Your task to perform on an android device: open app "Etsy: Buy & Sell Unique Items" (install if not already installed) and enter user name: "camp@inbox.com" and password: "unrelated" Image 0: 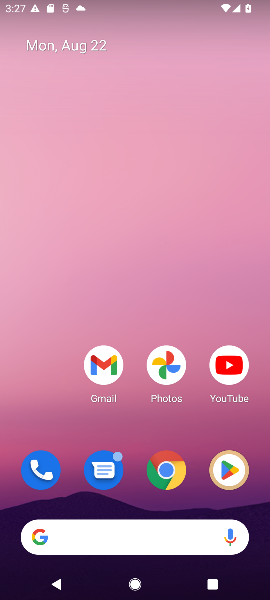
Step 0: drag from (104, 476) to (151, 129)
Your task to perform on an android device: open app "Etsy: Buy & Sell Unique Items" (install if not already installed) and enter user name: "camp@inbox.com" and password: "unrelated" Image 1: 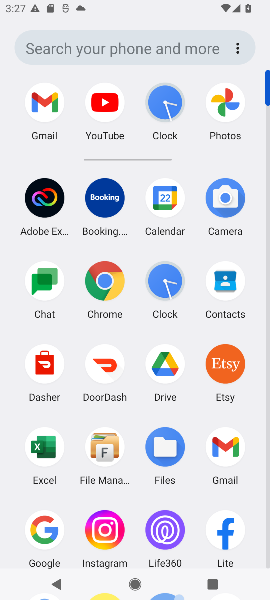
Step 1: drag from (111, 507) to (180, 115)
Your task to perform on an android device: open app "Etsy: Buy & Sell Unique Items" (install if not already installed) and enter user name: "camp@inbox.com" and password: "unrelated" Image 2: 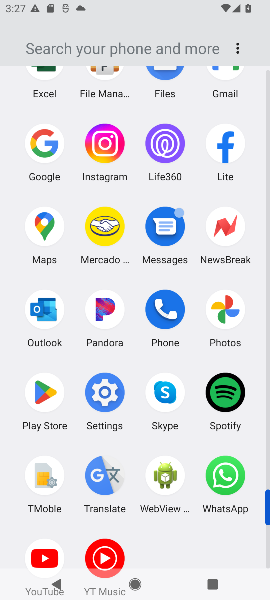
Step 2: click (32, 398)
Your task to perform on an android device: open app "Etsy: Buy & Sell Unique Items" (install if not already installed) and enter user name: "camp@inbox.com" and password: "unrelated" Image 3: 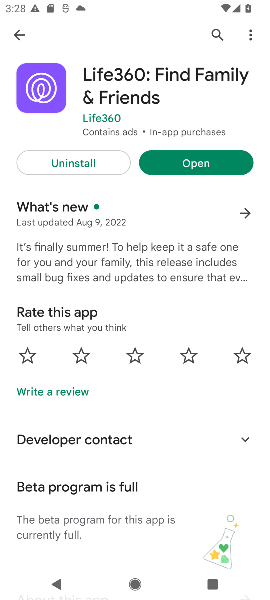
Step 3: click (27, 33)
Your task to perform on an android device: open app "Etsy: Buy & Sell Unique Items" (install if not already installed) and enter user name: "camp@inbox.com" and password: "unrelated" Image 4: 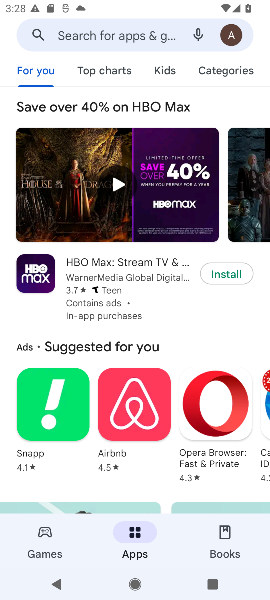
Step 4: click (95, 30)
Your task to perform on an android device: open app "Etsy: Buy & Sell Unique Items" (install if not already installed) and enter user name: "camp@inbox.com" and password: "unrelated" Image 5: 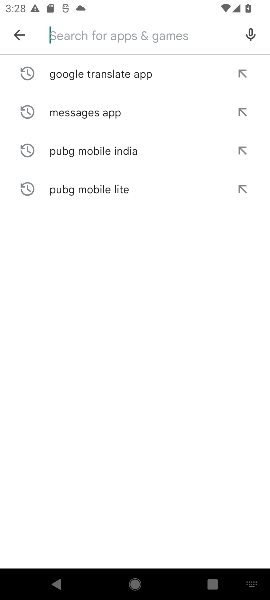
Step 5: type "Etsy: Buy & Sell Unique Items "
Your task to perform on an android device: open app "Etsy: Buy & Sell Unique Items" (install if not already installed) and enter user name: "camp@inbox.com" and password: "unrelated" Image 6: 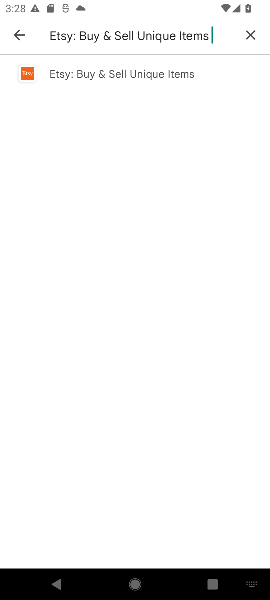
Step 6: click (62, 66)
Your task to perform on an android device: open app "Etsy: Buy & Sell Unique Items" (install if not already installed) and enter user name: "camp@inbox.com" and password: "unrelated" Image 7: 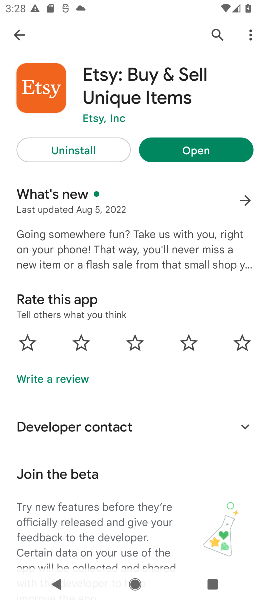
Step 7: click (188, 144)
Your task to perform on an android device: open app "Etsy: Buy & Sell Unique Items" (install if not already installed) and enter user name: "camp@inbox.com" and password: "unrelated" Image 8: 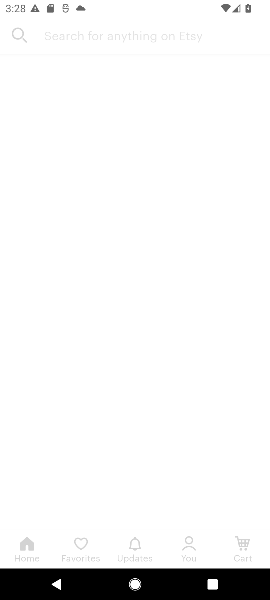
Step 8: task complete